Your task to perform on an android device: search for starred emails in the gmail app Image 0: 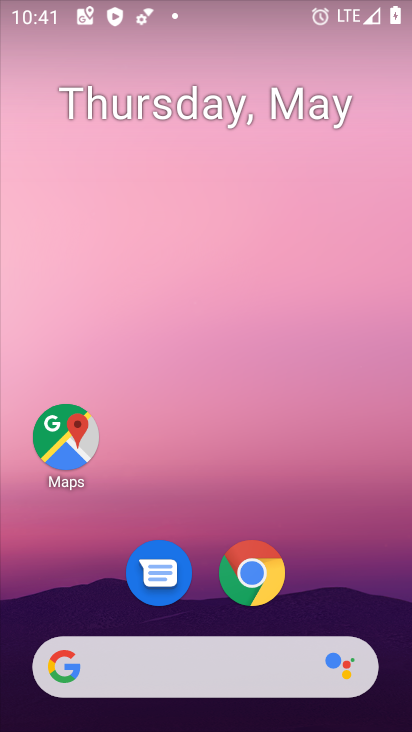
Step 0: drag from (213, 509) to (213, 226)
Your task to perform on an android device: search for starred emails in the gmail app Image 1: 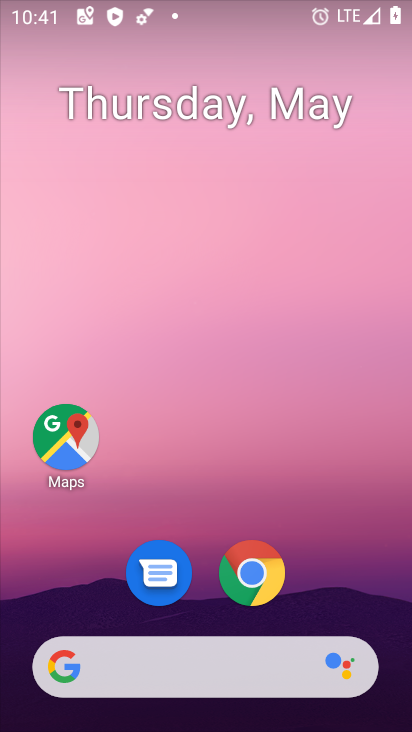
Step 1: drag from (201, 618) to (255, 231)
Your task to perform on an android device: search for starred emails in the gmail app Image 2: 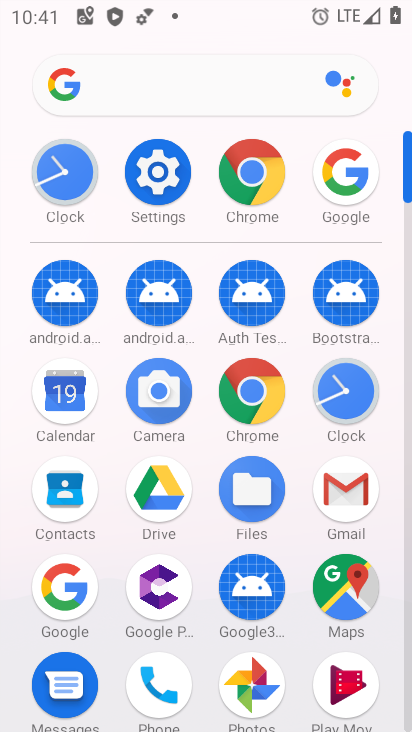
Step 2: click (344, 466)
Your task to perform on an android device: search for starred emails in the gmail app Image 3: 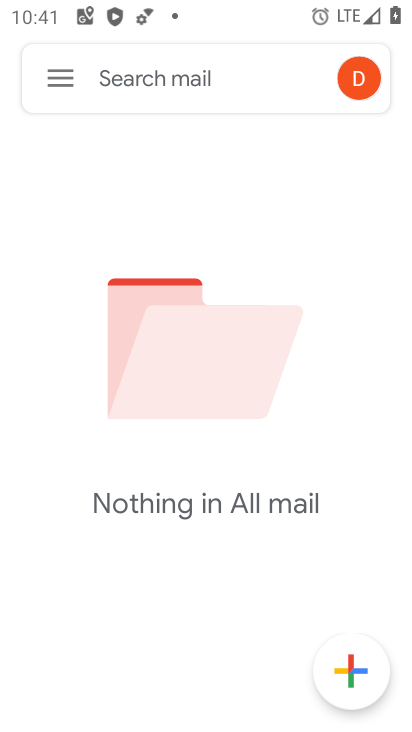
Step 3: click (60, 81)
Your task to perform on an android device: search for starred emails in the gmail app Image 4: 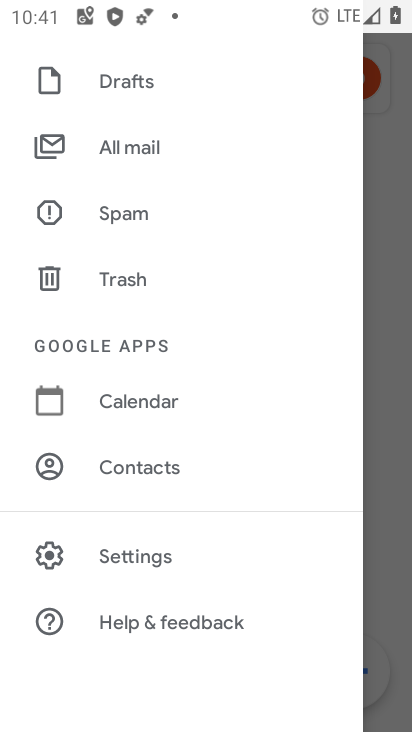
Step 4: drag from (119, 156) to (143, 369)
Your task to perform on an android device: search for starred emails in the gmail app Image 5: 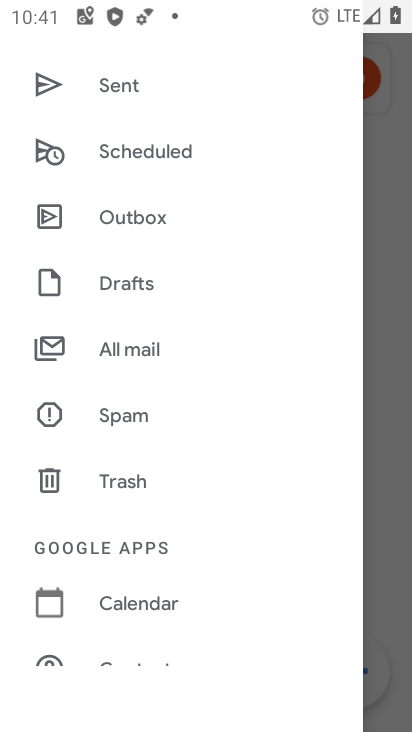
Step 5: drag from (157, 138) to (170, 381)
Your task to perform on an android device: search for starred emails in the gmail app Image 6: 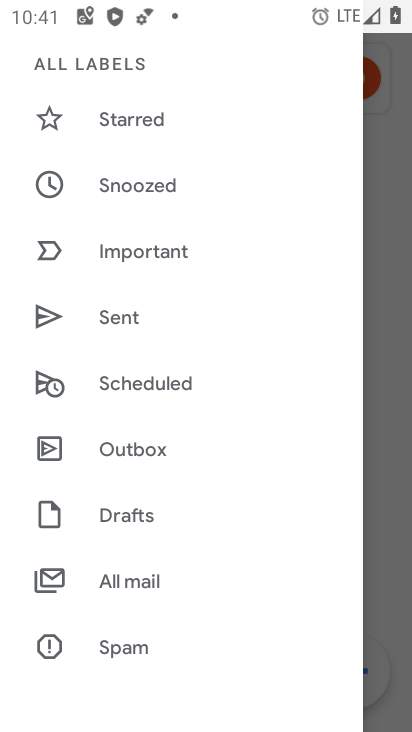
Step 6: click (148, 123)
Your task to perform on an android device: search for starred emails in the gmail app Image 7: 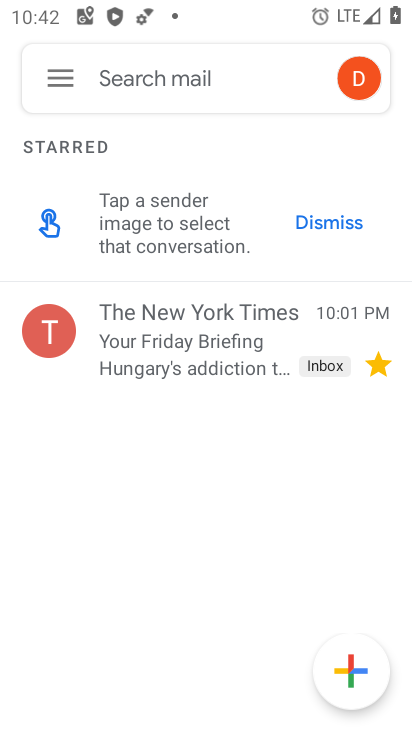
Step 7: task complete